Your task to perform on an android device: Empty the shopping cart on ebay. Add alienware aurora to the cart on ebay, then select checkout. Image 0: 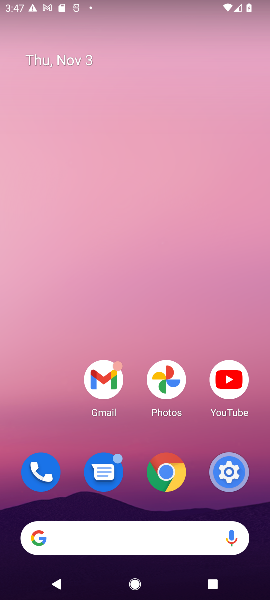
Step 0: click (161, 538)
Your task to perform on an android device: Empty the shopping cart on ebay. Add alienware aurora to the cart on ebay, then select checkout. Image 1: 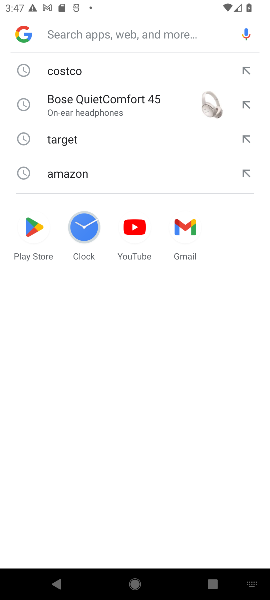
Step 1: type "ebay.com"
Your task to perform on an android device: Empty the shopping cart on ebay. Add alienware aurora to the cart on ebay, then select checkout. Image 2: 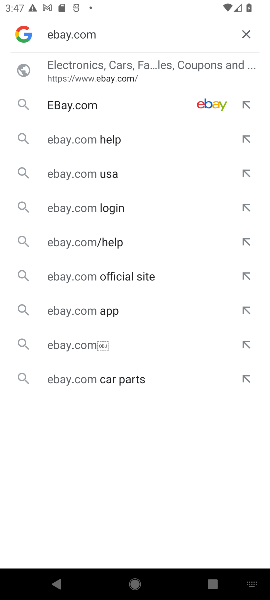
Step 2: click (122, 61)
Your task to perform on an android device: Empty the shopping cart on ebay. Add alienware aurora to the cart on ebay, then select checkout. Image 3: 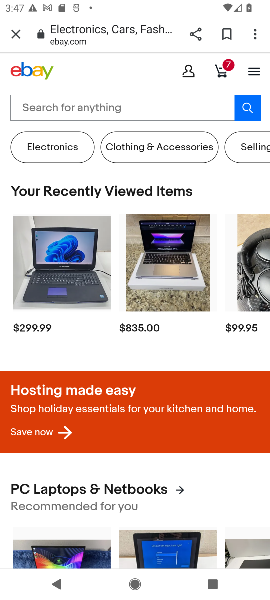
Step 3: click (132, 106)
Your task to perform on an android device: Empty the shopping cart on ebay. Add alienware aurora to the cart on ebay, then select checkout. Image 4: 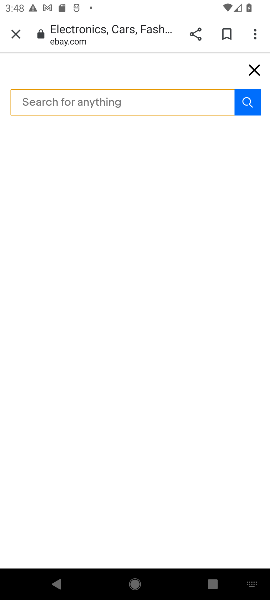
Step 4: type "alienware aurora"
Your task to perform on an android device: Empty the shopping cart on ebay. Add alienware aurora to the cart on ebay, then select checkout. Image 5: 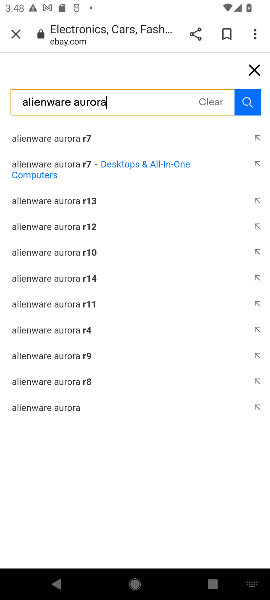
Step 5: click (67, 135)
Your task to perform on an android device: Empty the shopping cart on ebay. Add alienware aurora to the cart on ebay, then select checkout. Image 6: 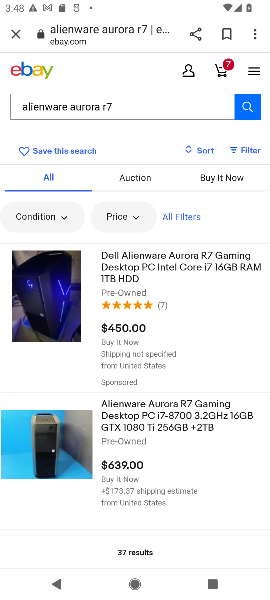
Step 6: click (124, 260)
Your task to perform on an android device: Empty the shopping cart on ebay. Add alienware aurora to the cart on ebay, then select checkout. Image 7: 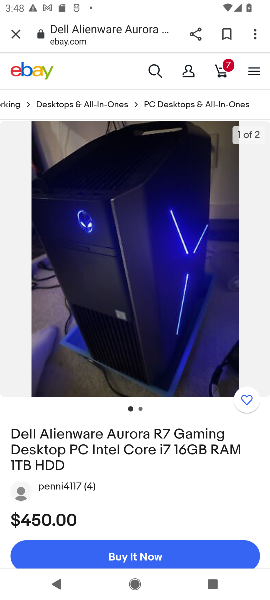
Step 7: click (126, 544)
Your task to perform on an android device: Empty the shopping cart on ebay. Add alienware aurora to the cart on ebay, then select checkout. Image 8: 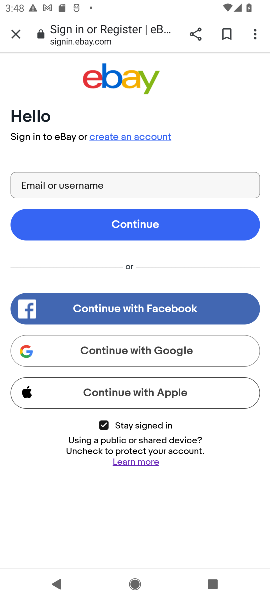
Step 8: task complete